Your task to perform on an android device: change notification settings in the gmail app Image 0: 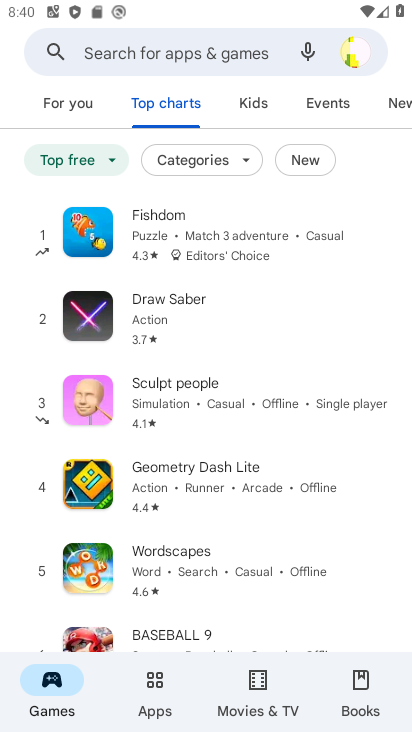
Step 0: press home button
Your task to perform on an android device: change notification settings in the gmail app Image 1: 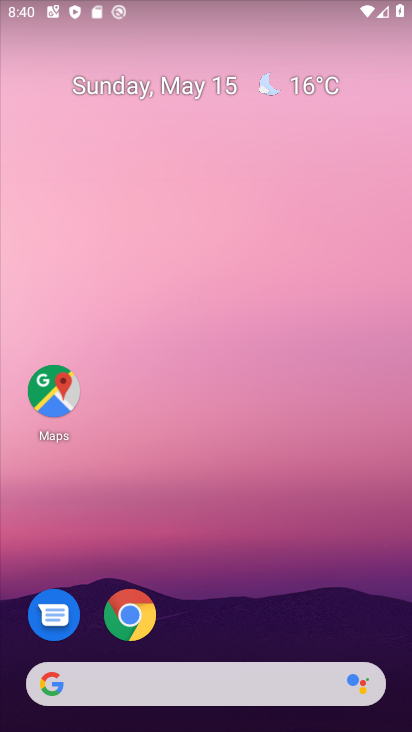
Step 1: drag from (278, 603) to (233, 48)
Your task to perform on an android device: change notification settings in the gmail app Image 2: 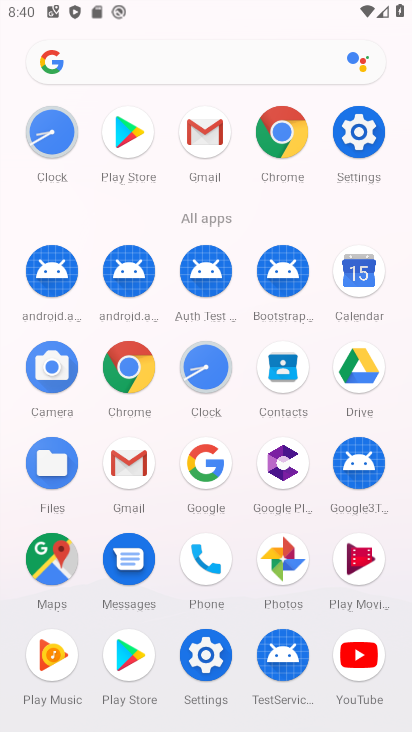
Step 2: click (115, 450)
Your task to perform on an android device: change notification settings in the gmail app Image 3: 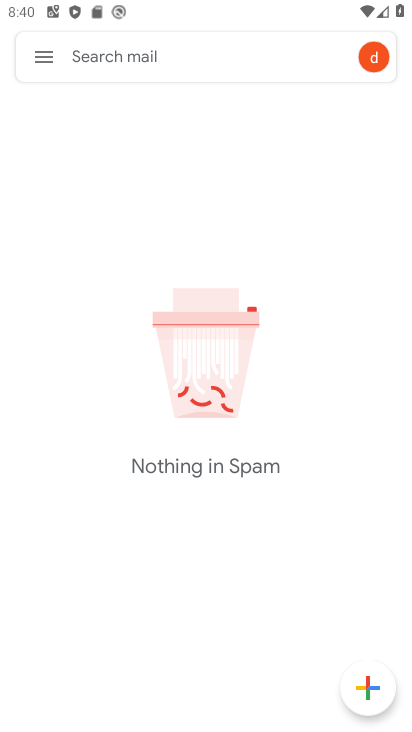
Step 3: click (36, 59)
Your task to perform on an android device: change notification settings in the gmail app Image 4: 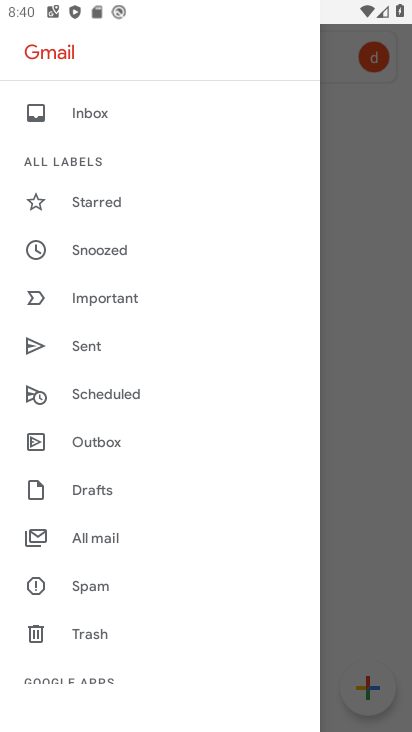
Step 4: drag from (171, 650) to (149, 215)
Your task to perform on an android device: change notification settings in the gmail app Image 5: 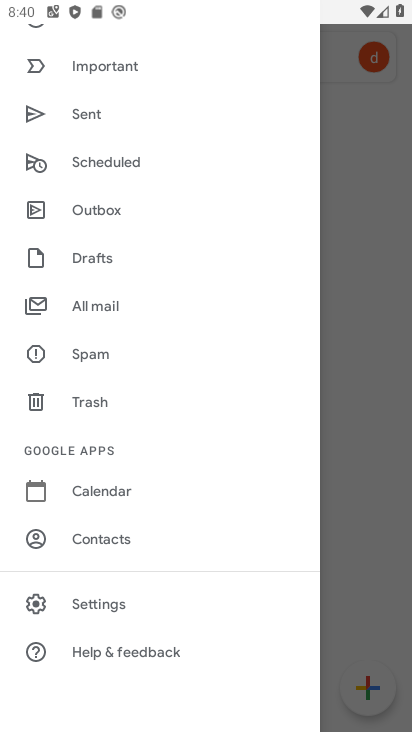
Step 5: click (97, 596)
Your task to perform on an android device: change notification settings in the gmail app Image 6: 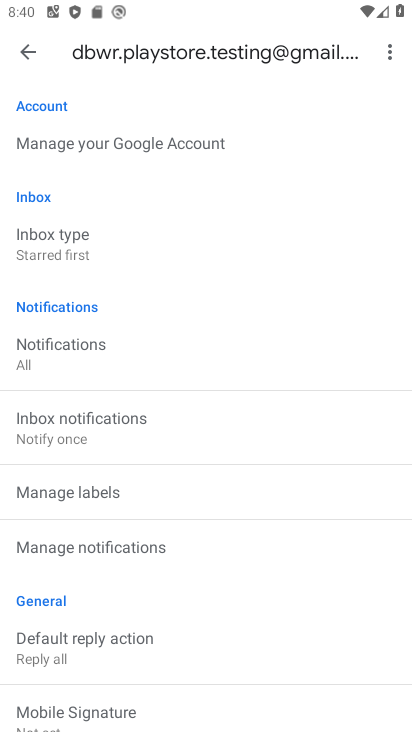
Step 6: click (105, 364)
Your task to perform on an android device: change notification settings in the gmail app Image 7: 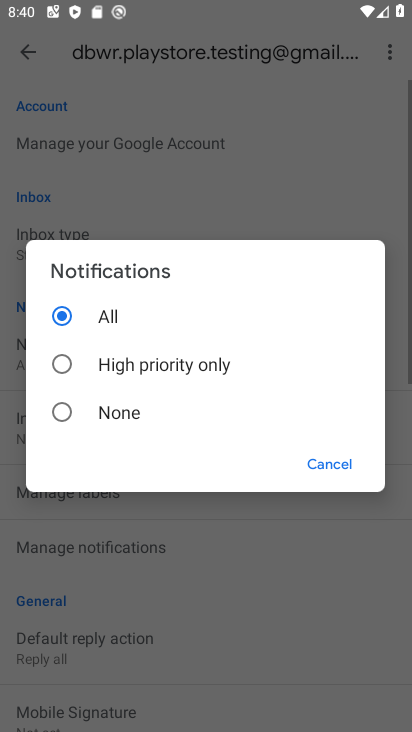
Step 7: click (101, 360)
Your task to perform on an android device: change notification settings in the gmail app Image 8: 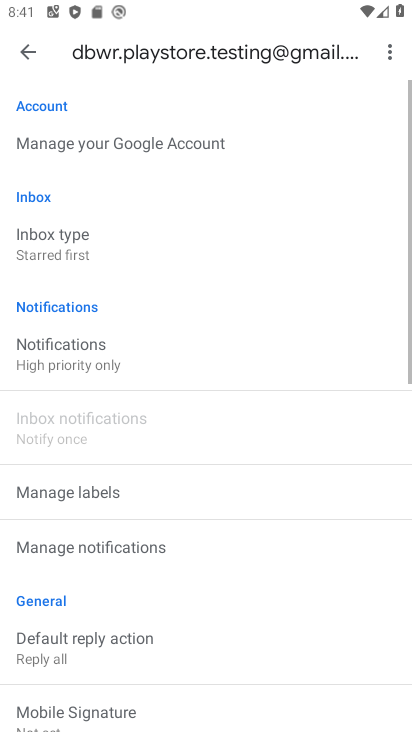
Step 8: click (93, 546)
Your task to perform on an android device: change notification settings in the gmail app Image 9: 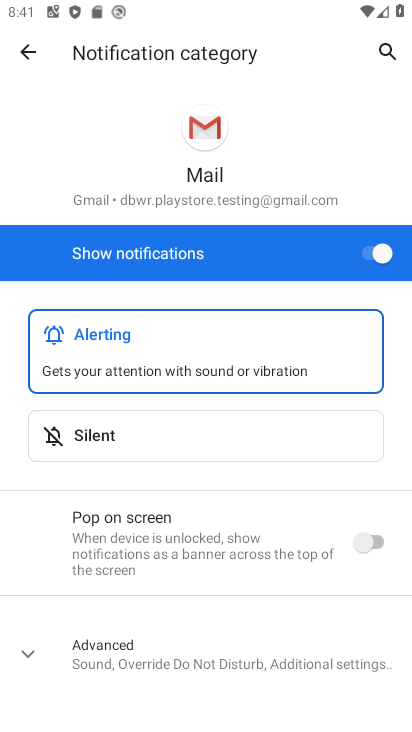
Step 9: click (310, 531)
Your task to perform on an android device: change notification settings in the gmail app Image 10: 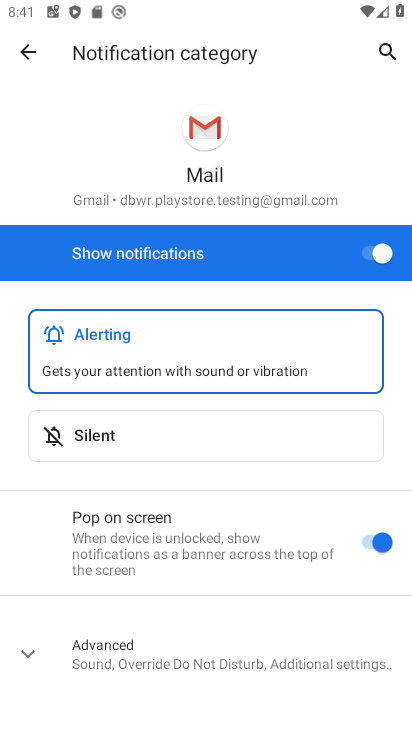
Step 10: task complete